Your task to perform on an android device: Open calendar and show me the first week of next month Image 0: 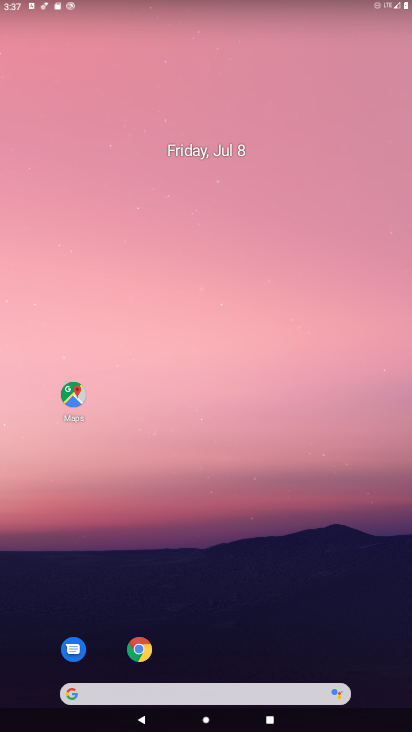
Step 0: drag from (379, 661) to (325, 157)
Your task to perform on an android device: Open calendar and show me the first week of next month Image 1: 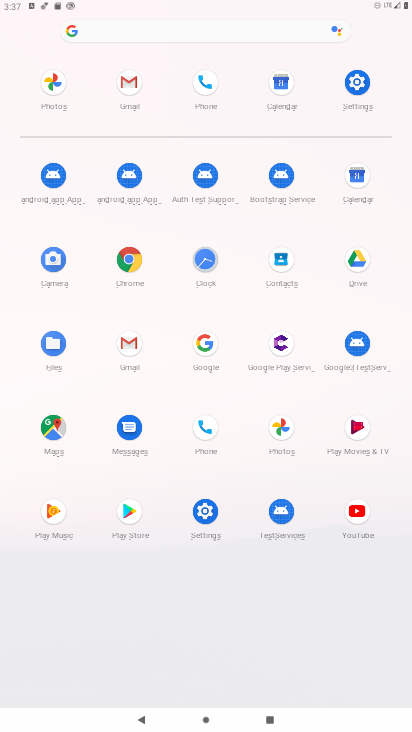
Step 1: click (358, 172)
Your task to perform on an android device: Open calendar and show me the first week of next month Image 2: 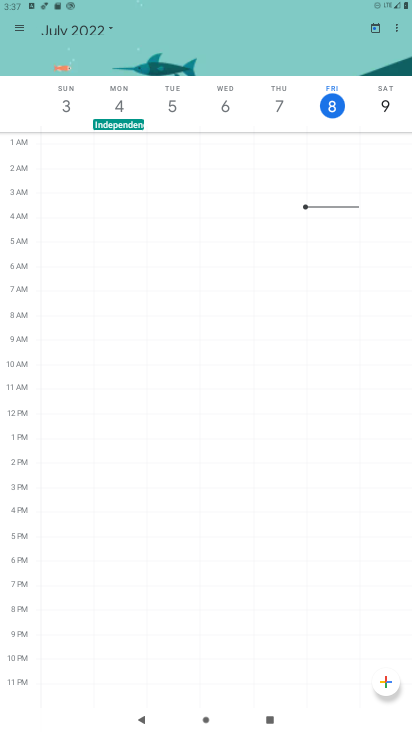
Step 2: click (104, 24)
Your task to perform on an android device: Open calendar and show me the first week of next month Image 3: 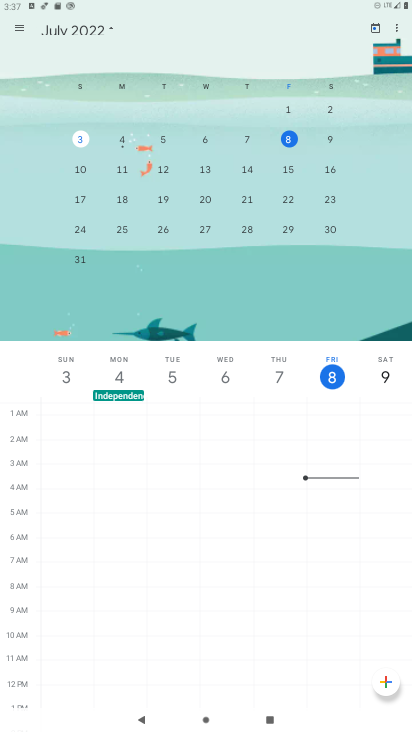
Step 3: drag from (352, 207) to (101, 235)
Your task to perform on an android device: Open calendar and show me the first week of next month Image 4: 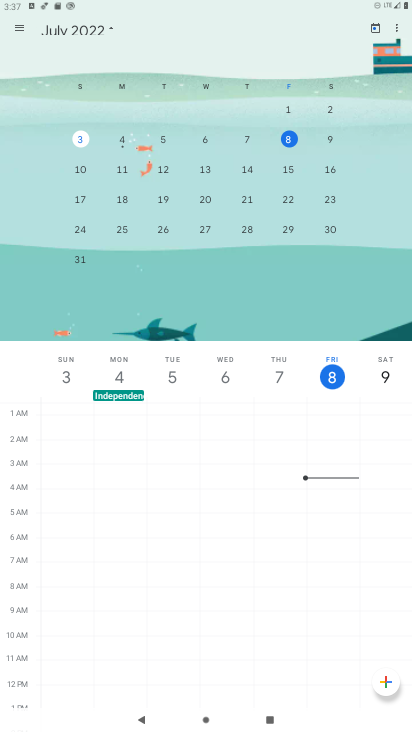
Step 4: drag from (344, 202) to (63, 186)
Your task to perform on an android device: Open calendar and show me the first week of next month Image 5: 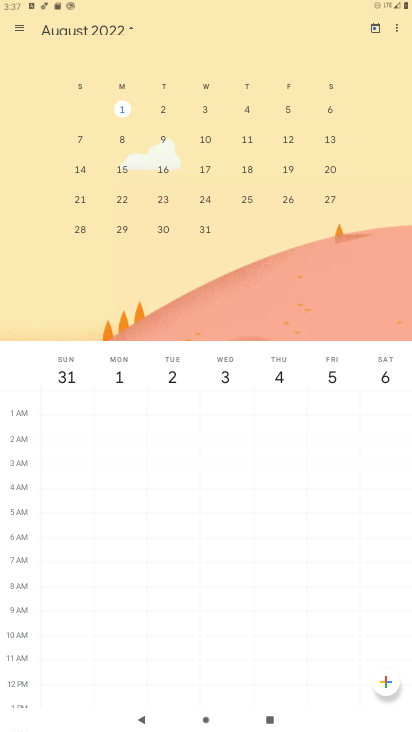
Step 5: click (75, 141)
Your task to perform on an android device: Open calendar and show me the first week of next month Image 6: 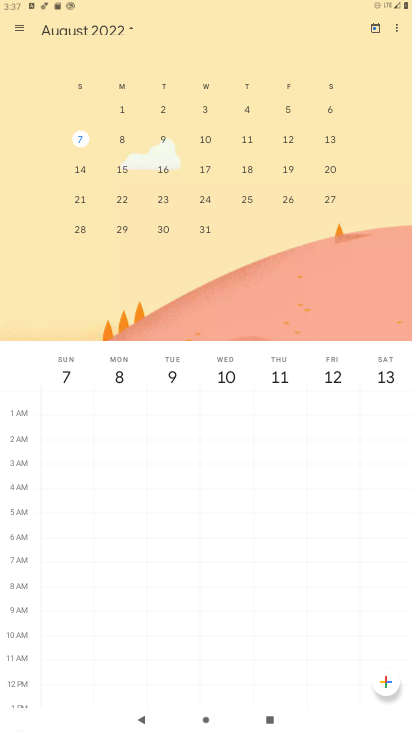
Step 6: task complete